Your task to perform on an android device: turn off priority inbox in the gmail app Image 0: 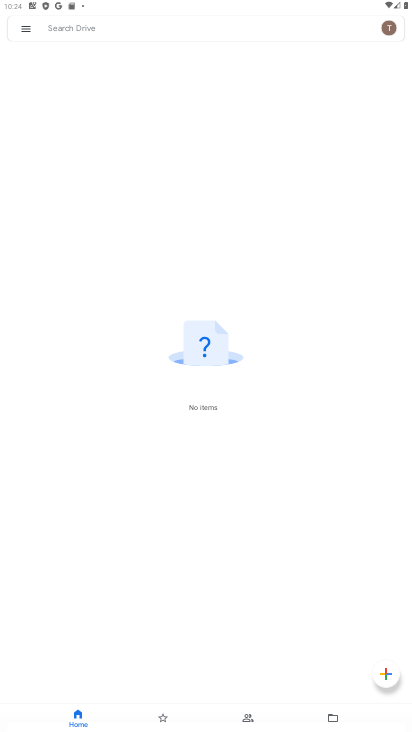
Step 0: press home button
Your task to perform on an android device: turn off priority inbox in the gmail app Image 1: 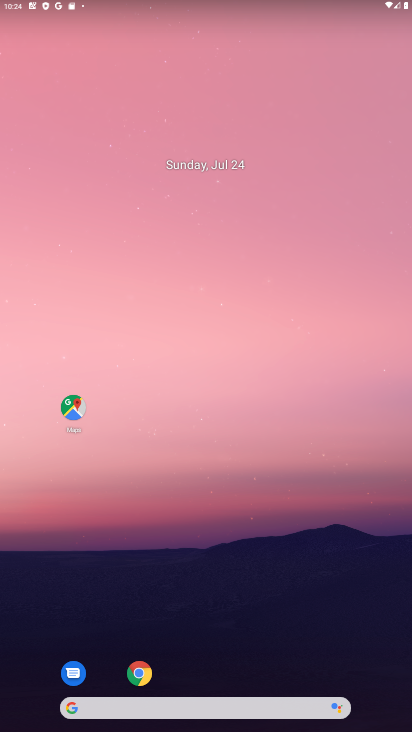
Step 1: drag from (10, 692) to (246, 127)
Your task to perform on an android device: turn off priority inbox in the gmail app Image 2: 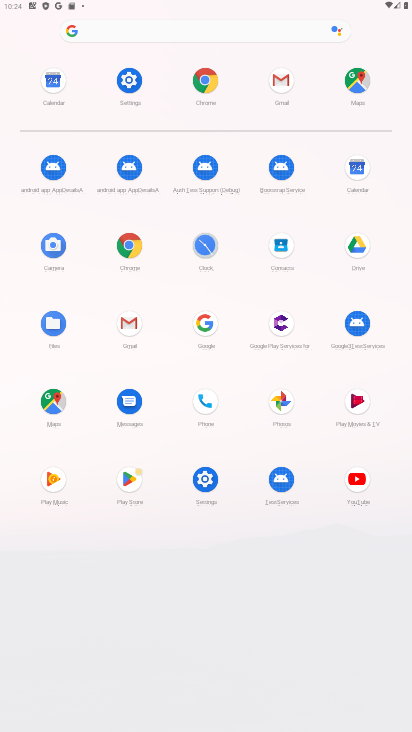
Step 2: click (132, 333)
Your task to perform on an android device: turn off priority inbox in the gmail app Image 3: 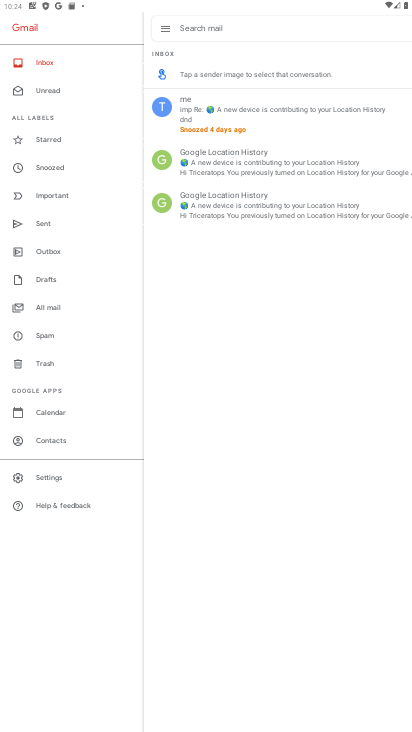
Step 3: click (68, 483)
Your task to perform on an android device: turn off priority inbox in the gmail app Image 4: 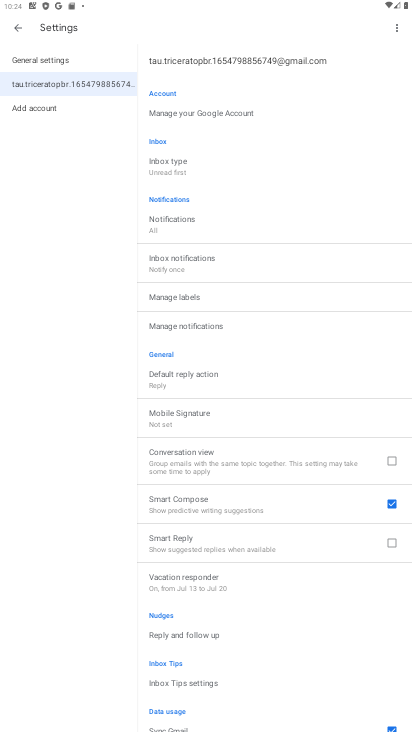
Step 4: click (195, 167)
Your task to perform on an android device: turn off priority inbox in the gmail app Image 5: 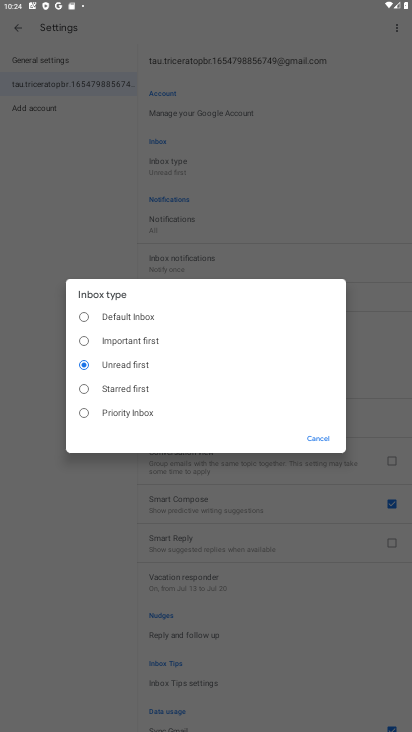
Step 5: click (98, 411)
Your task to perform on an android device: turn off priority inbox in the gmail app Image 6: 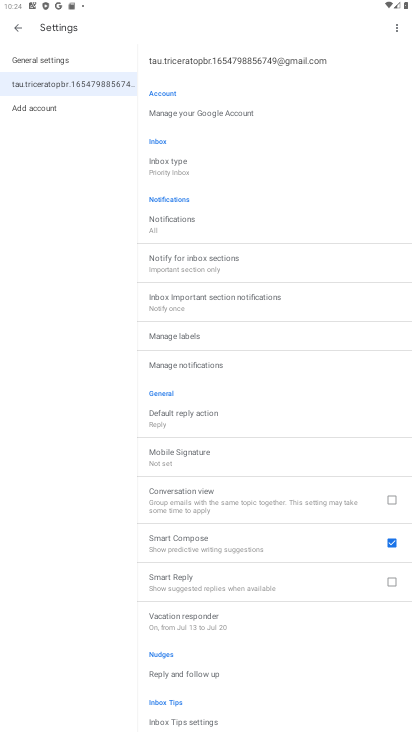
Step 6: task complete